Your task to perform on an android device: Do I have any events tomorrow? Image 0: 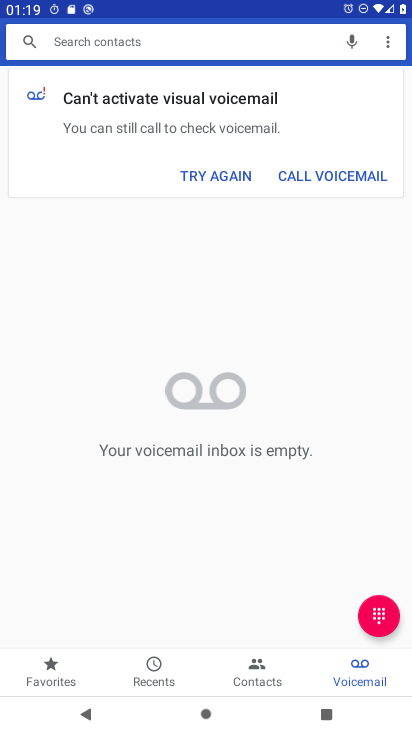
Step 0: press home button
Your task to perform on an android device: Do I have any events tomorrow? Image 1: 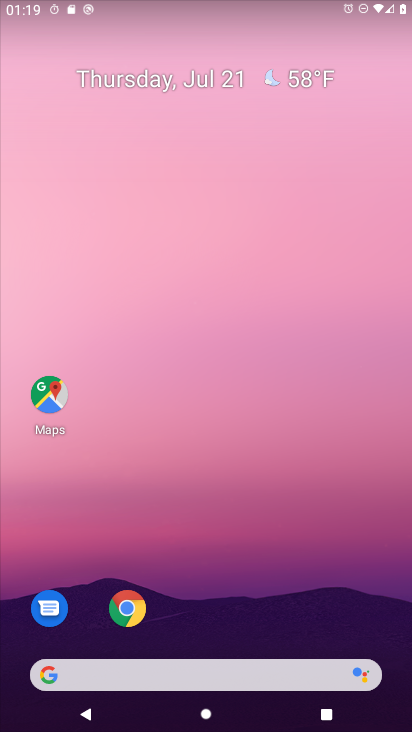
Step 1: drag from (237, 641) to (220, 5)
Your task to perform on an android device: Do I have any events tomorrow? Image 2: 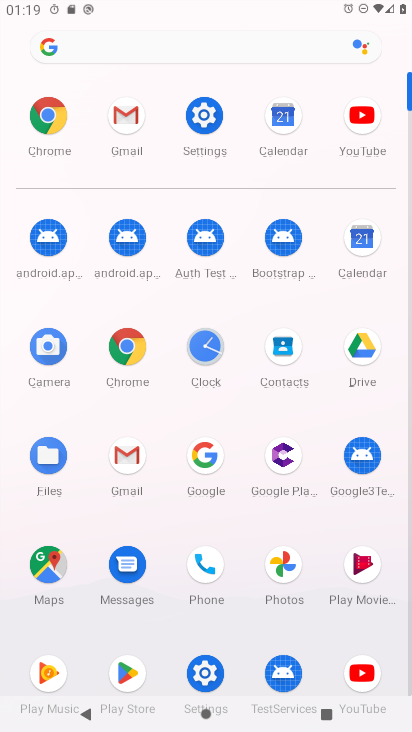
Step 2: click (369, 244)
Your task to perform on an android device: Do I have any events tomorrow? Image 3: 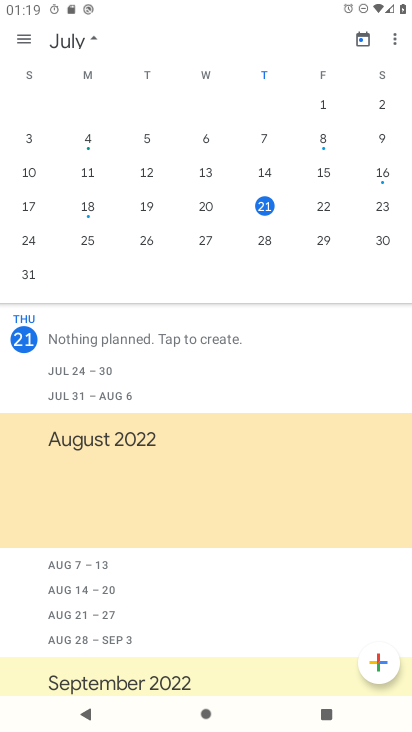
Step 3: click (317, 206)
Your task to perform on an android device: Do I have any events tomorrow? Image 4: 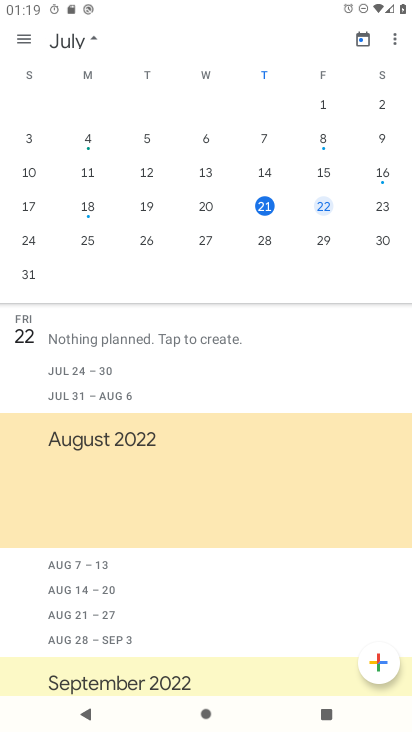
Step 4: task complete